Your task to perform on an android device: turn on location history Image 0: 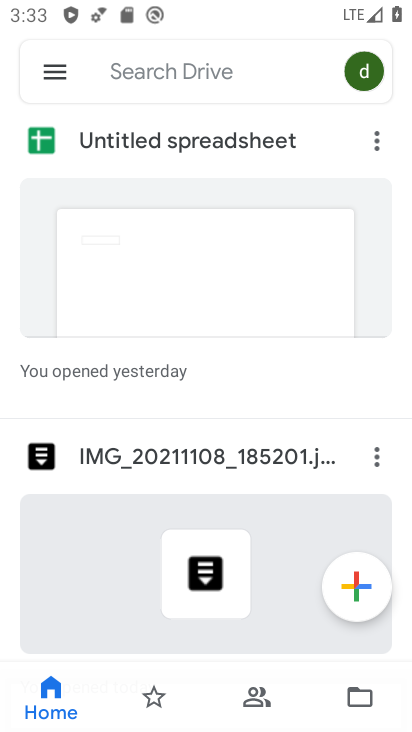
Step 0: press home button
Your task to perform on an android device: turn on location history Image 1: 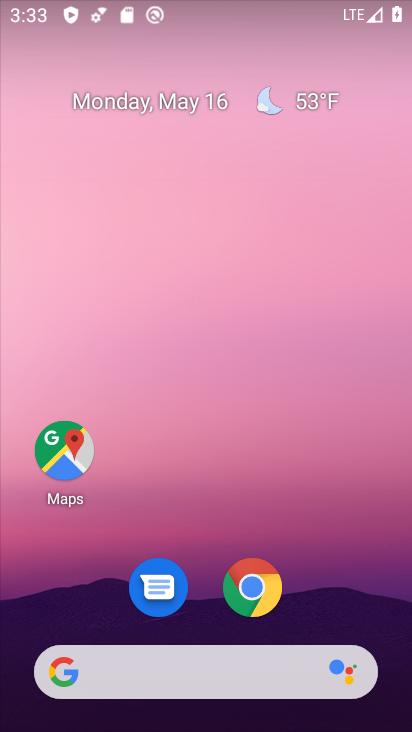
Step 1: drag from (162, 645) to (263, 176)
Your task to perform on an android device: turn on location history Image 2: 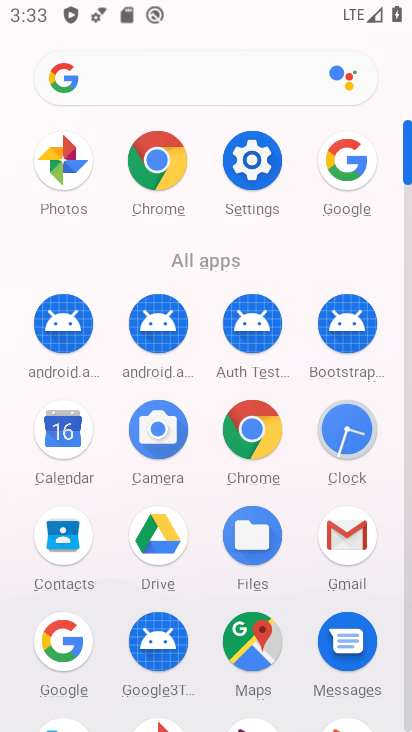
Step 2: drag from (210, 627) to (284, 357)
Your task to perform on an android device: turn on location history Image 3: 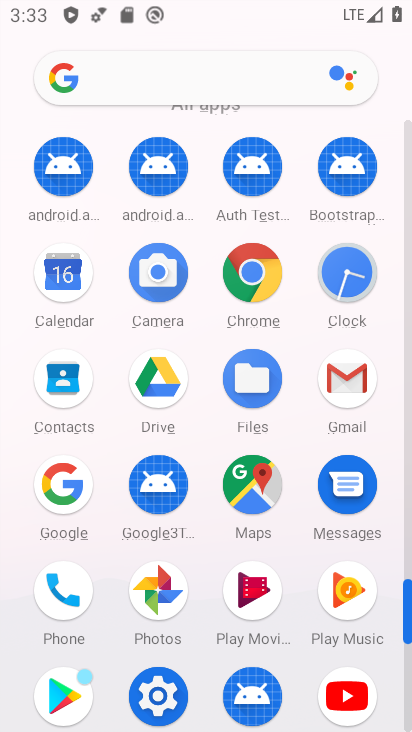
Step 3: click (163, 688)
Your task to perform on an android device: turn on location history Image 4: 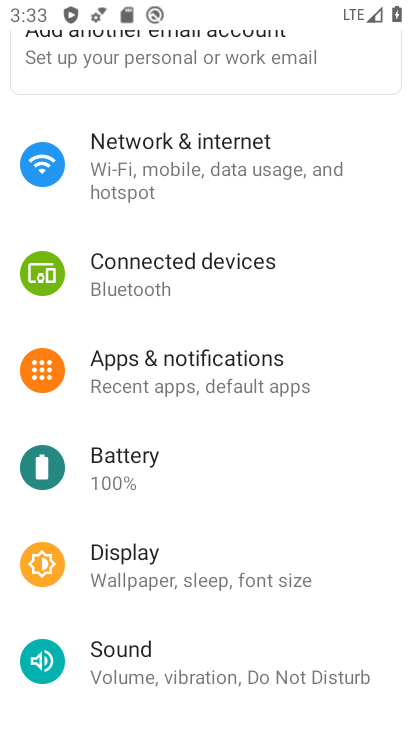
Step 4: drag from (171, 669) to (274, 293)
Your task to perform on an android device: turn on location history Image 5: 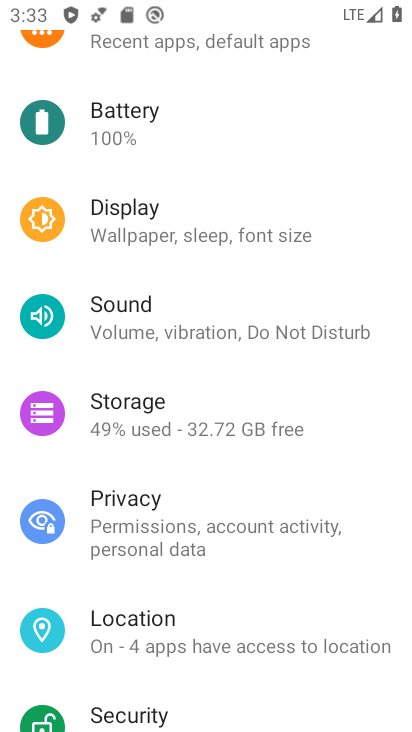
Step 5: click (154, 639)
Your task to perform on an android device: turn on location history Image 6: 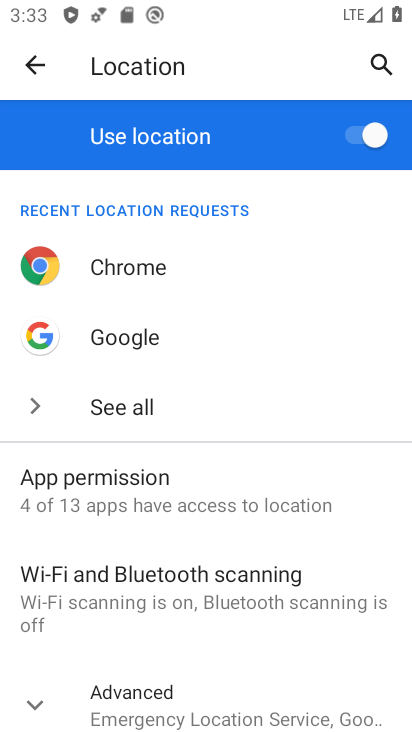
Step 6: click (136, 708)
Your task to perform on an android device: turn on location history Image 7: 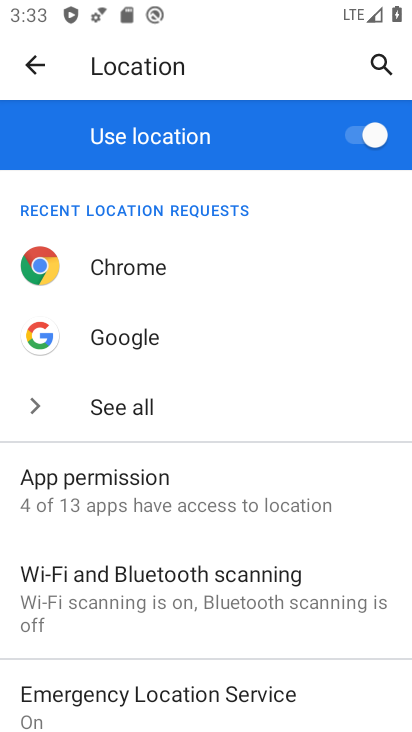
Step 7: drag from (239, 687) to (312, 391)
Your task to perform on an android device: turn on location history Image 8: 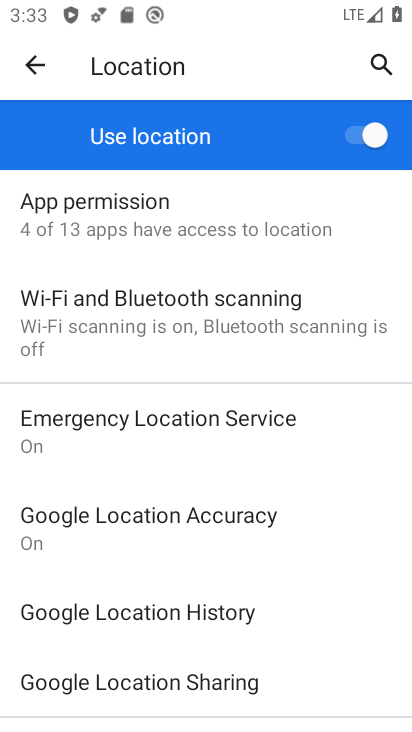
Step 8: click (232, 615)
Your task to perform on an android device: turn on location history Image 9: 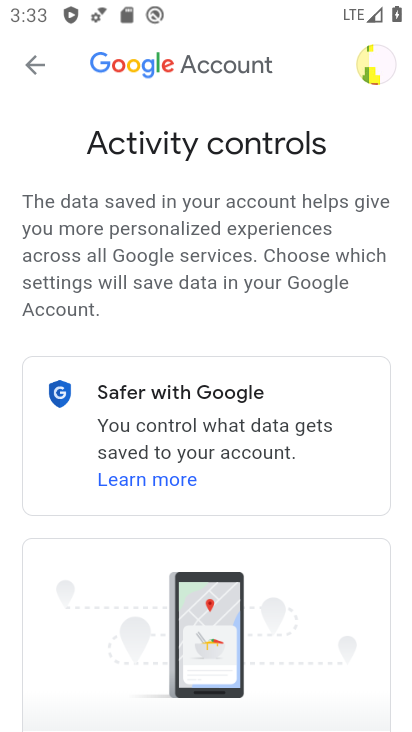
Step 9: task complete